Your task to perform on an android device: clear history in the chrome app Image 0: 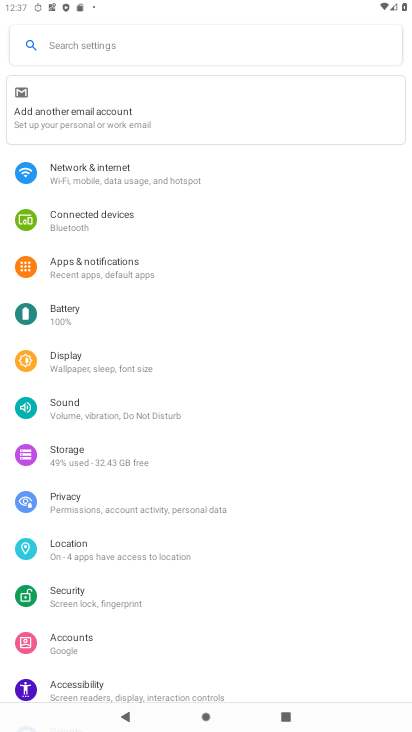
Step 0: press home button
Your task to perform on an android device: clear history in the chrome app Image 1: 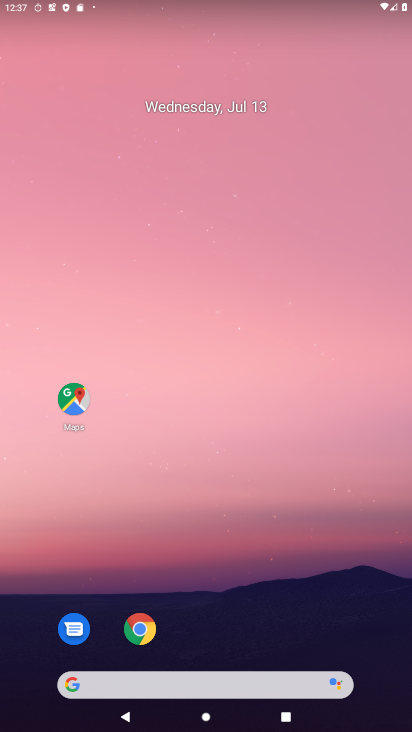
Step 1: click (140, 627)
Your task to perform on an android device: clear history in the chrome app Image 2: 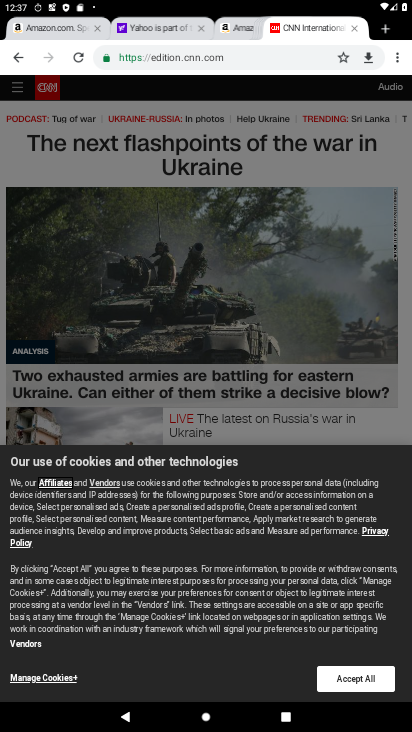
Step 2: click (392, 53)
Your task to perform on an android device: clear history in the chrome app Image 3: 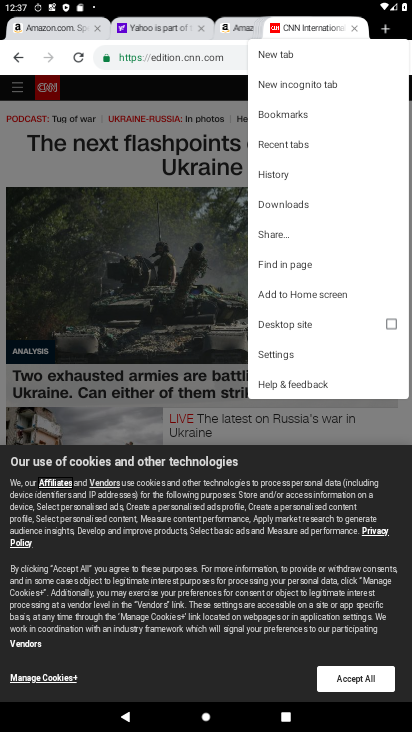
Step 3: click (279, 174)
Your task to perform on an android device: clear history in the chrome app Image 4: 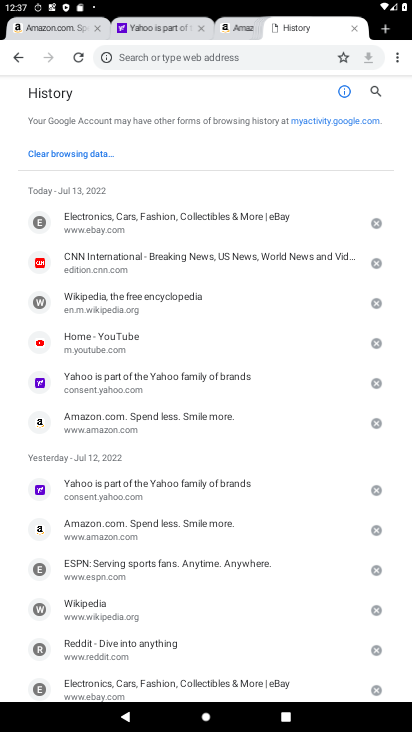
Step 4: click (84, 152)
Your task to perform on an android device: clear history in the chrome app Image 5: 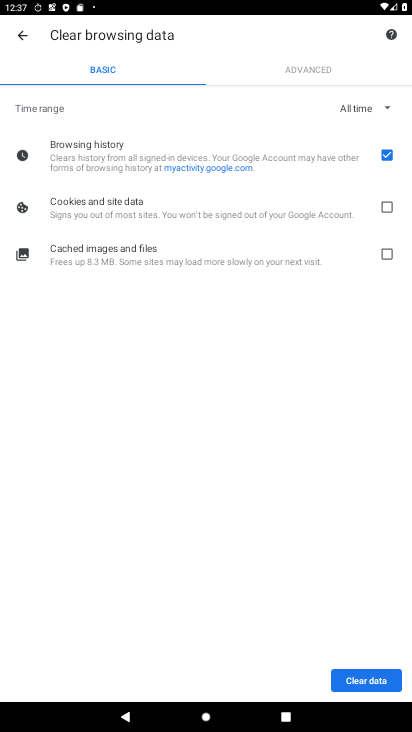
Step 5: click (364, 685)
Your task to perform on an android device: clear history in the chrome app Image 6: 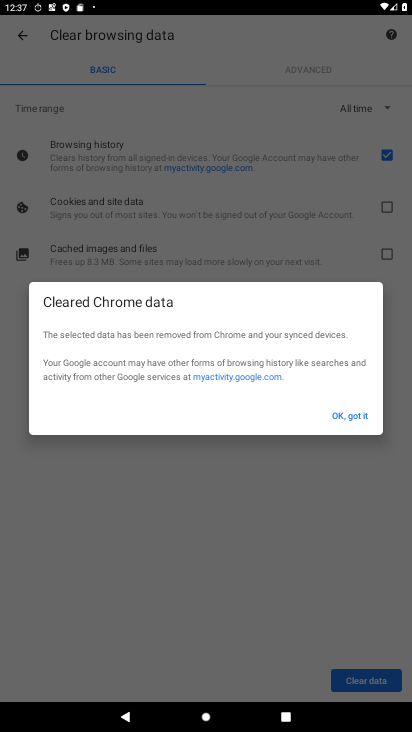
Step 6: click (347, 416)
Your task to perform on an android device: clear history in the chrome app Image 7: 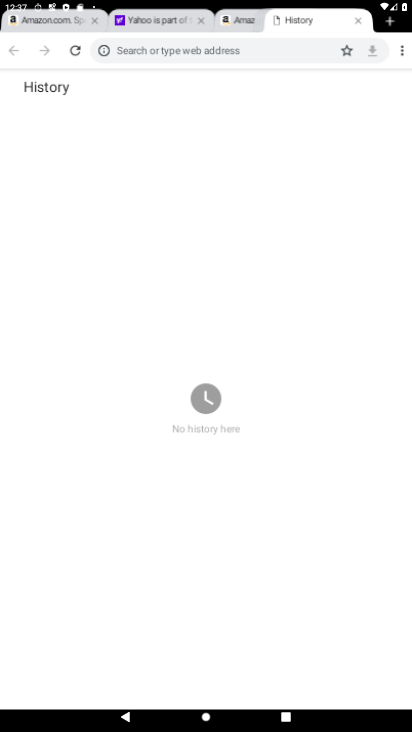
Step 7: task complete